Your task to perform on an android device: Open settings Image 0: 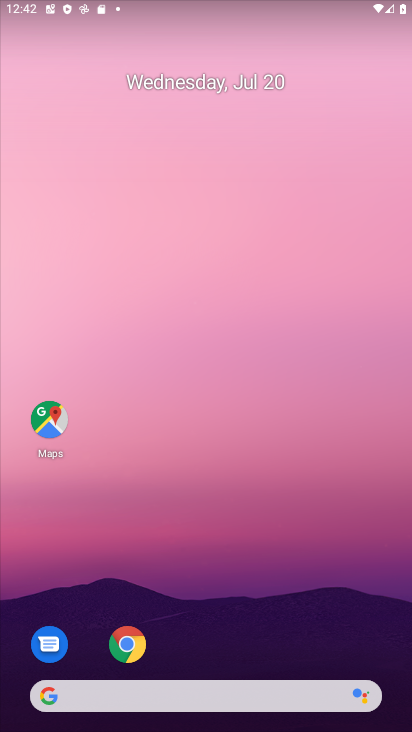
Step 0: drag from (229, 626) to (159, 24)
Your task to perform on an android device: Open settings Image 1: 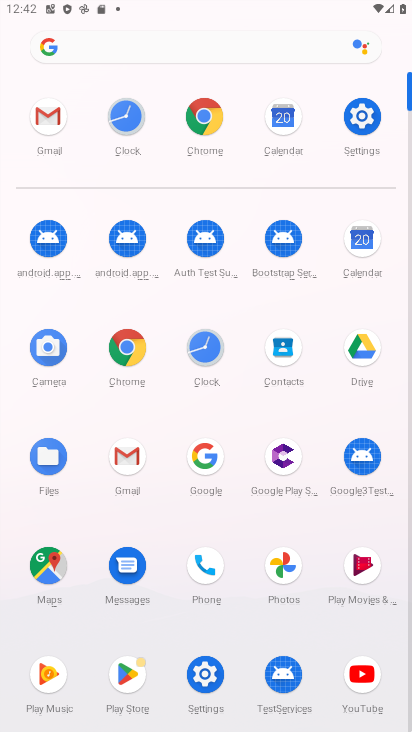
Step 1: click (202, 674)
Your task to perform on an android device: Open settings Image 2: 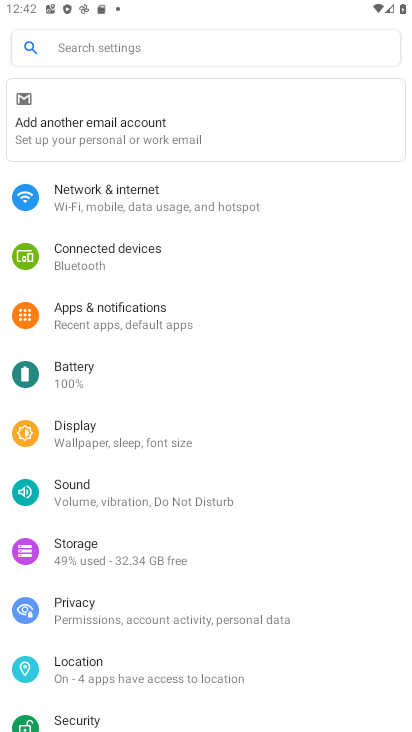
Step 2: task complete